Your task to perform on an android device: Check the weather Image 0: 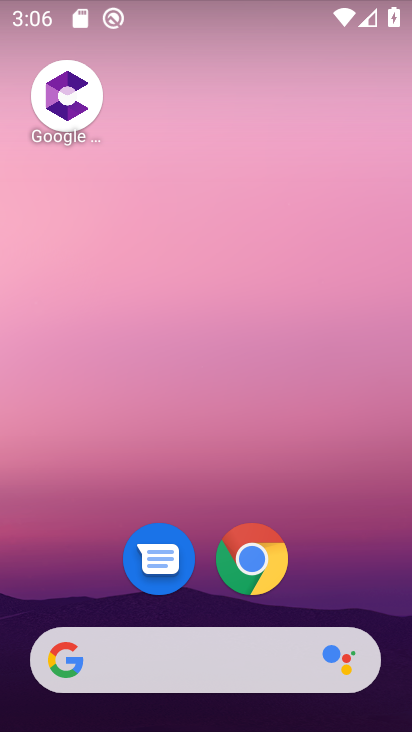
Step 0: click (197, 662)
Your task to perform on an android device: Check the weather Image 1: 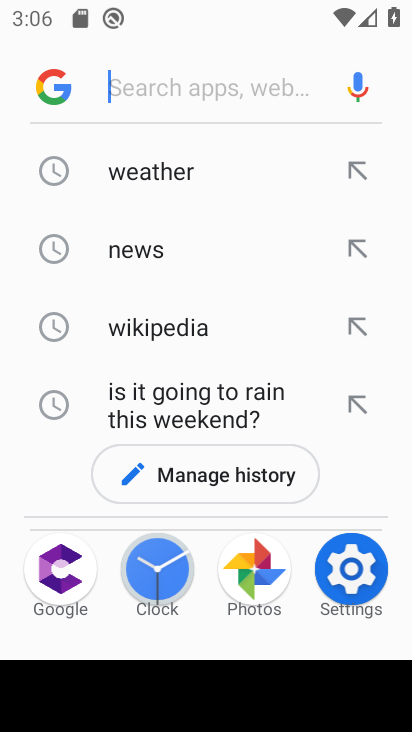
Step 1: click (149, 171)
Your task to perform on an android device: Check the weather Image 2: 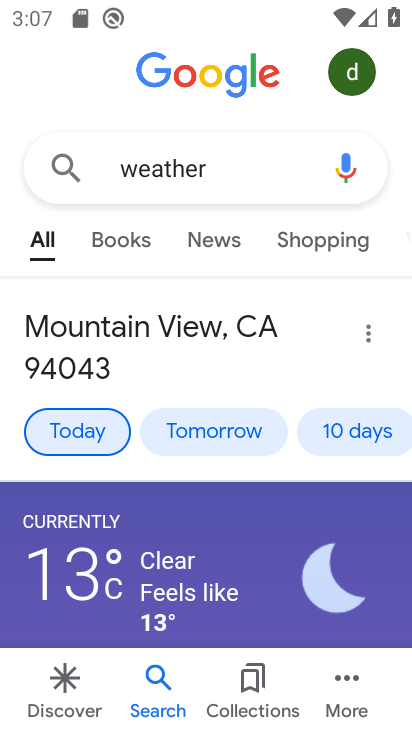
Step 2: task complete